Your task to perform on an android device: Open settings on Google Maps Image 0: 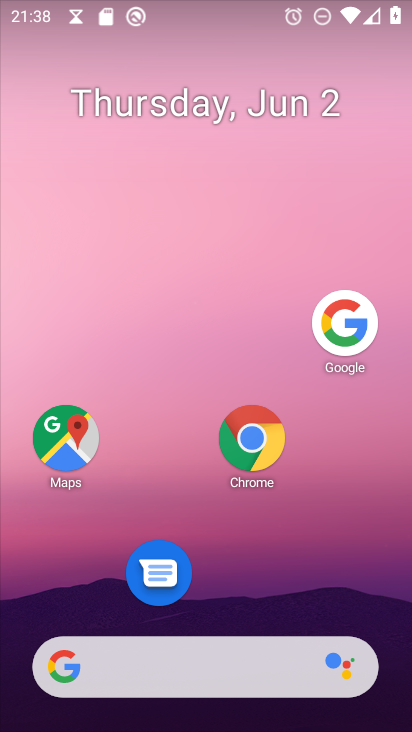
Step 0: press home button
Your task to perform on an android device: Open settings on Google Maps Image 1: 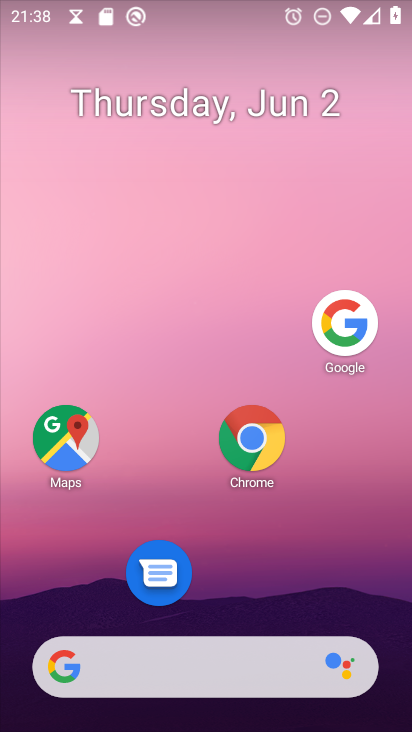
Step 1: click (57, 438)
Your task to perform on an android device: Open settings on Google Maps Image 2: 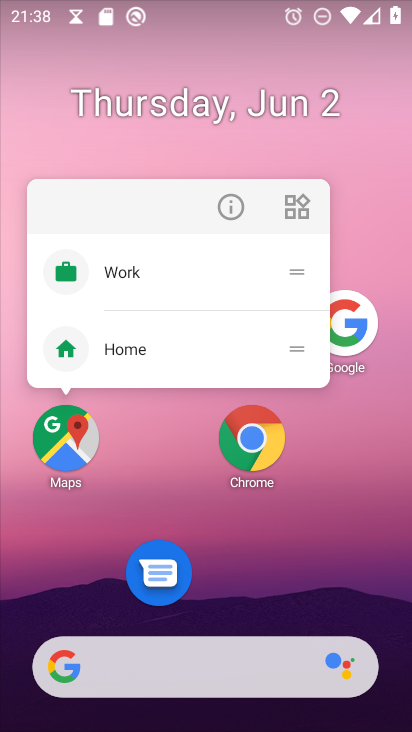
Step 2: click (65, 449)
Your task to perform on an android device: Open settings on Google Maps Image 3: 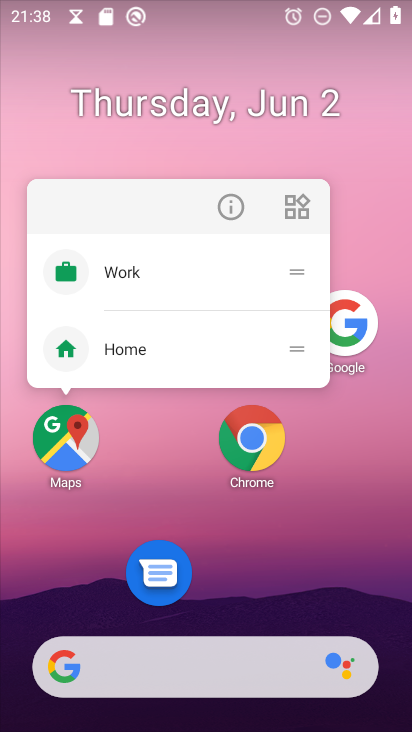
Step 3: click (69, 446)
Your task to perform on an android device: Open settings on Google Maps Image 4: 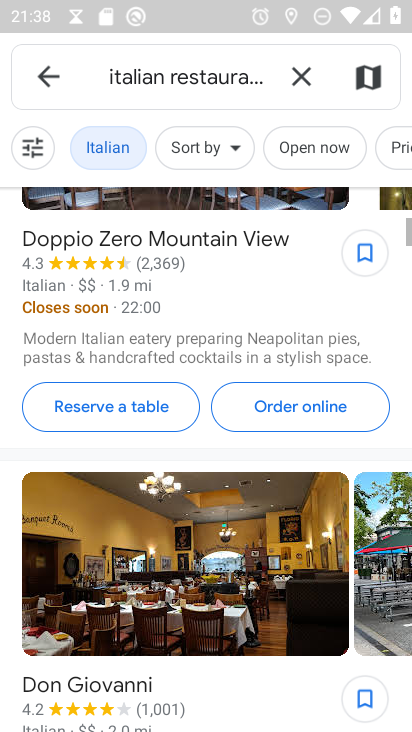
Step 4: click (53, 79)
Your task to perform on an android device: Open settings on Google Maps Image 5: 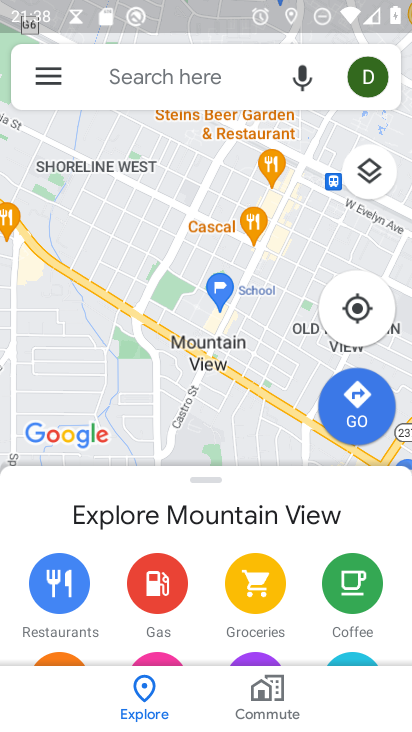
Step 5: click (49, 75)
Your task to perform on an android device: Open settings on Google Maps Image 6: 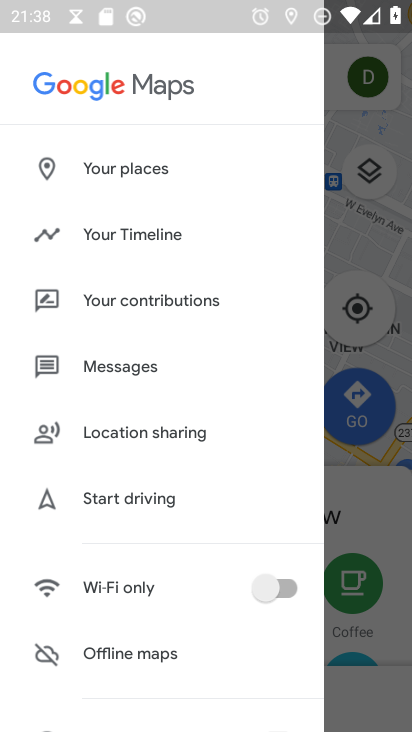
Step 6: drag from (160, 634) to (262, 81)
Your task to perform on an android device: Open settings on Google Maps Image 7: 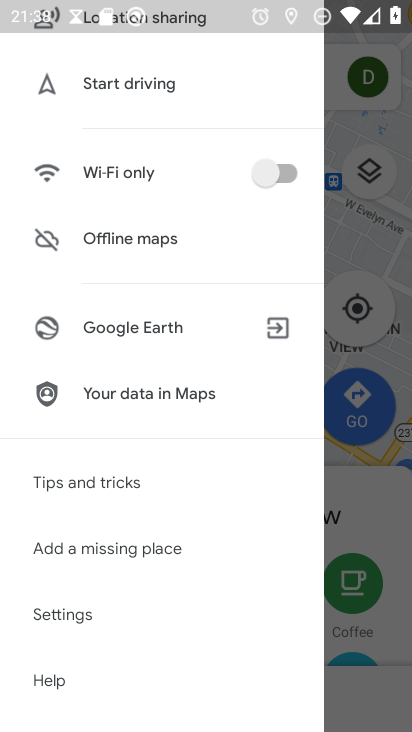
Step 7: click (74, 624)
Your task to perform on an android device: Open settings on Google Maps Image 8: 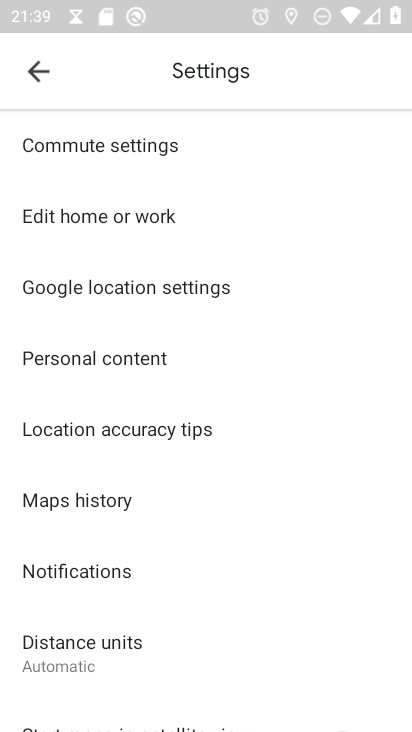
Step 8: task complete